Your task to perform on an android device: star an email in the gmail app Image 0: 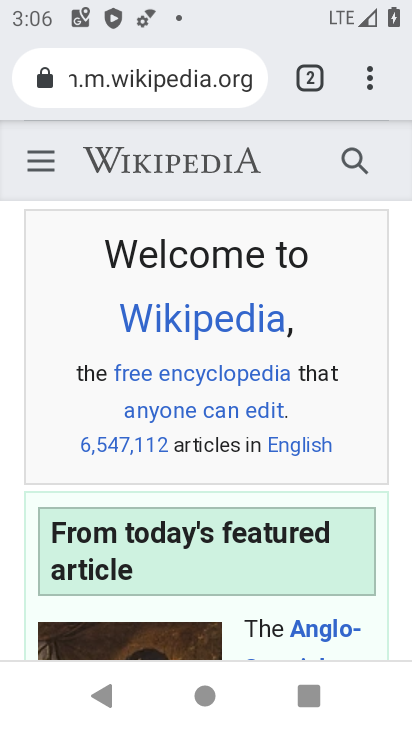
Step 0: press back button
Your task to perform on an android device: star an email in the gmail app Image 1: 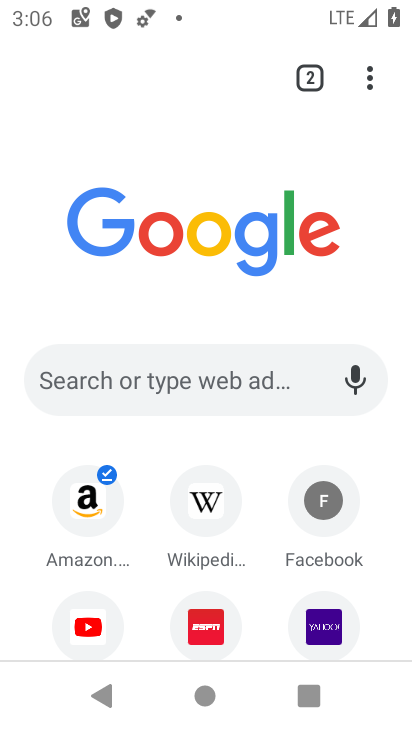
Step 1: press back button
Your task to perform on an android device: star an email in the gmail app Image 2: 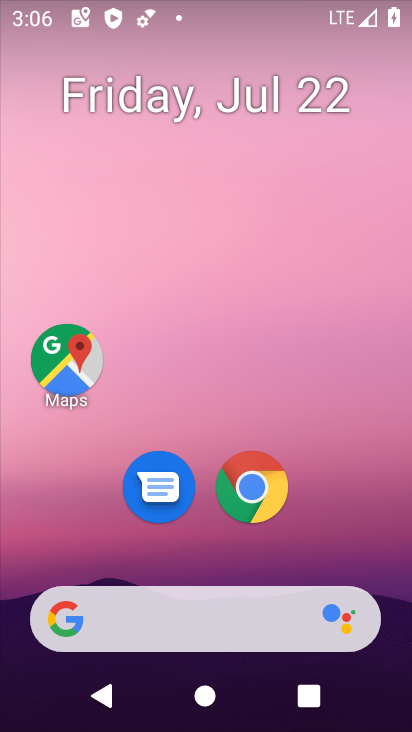
Step 2: drag from (205, 531) to (245, 71)
Your task to perform on an android device: star an email in the gmail app Image 3: 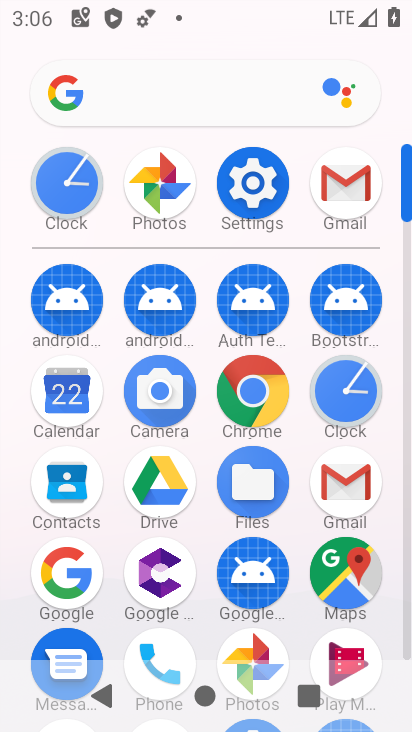
Step 3: click (355, 175)
Your task to perform on an android device: star an email in the gmail app Image 4: 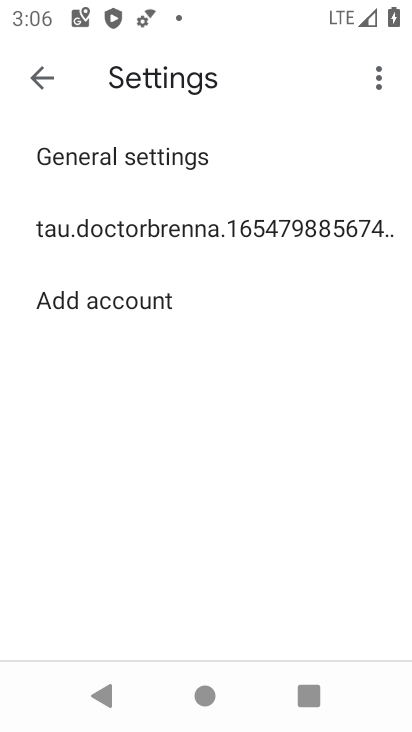
Step 4: click (33, 77)
Your task to perform on an android device: star an email in the gmail app Image 5: 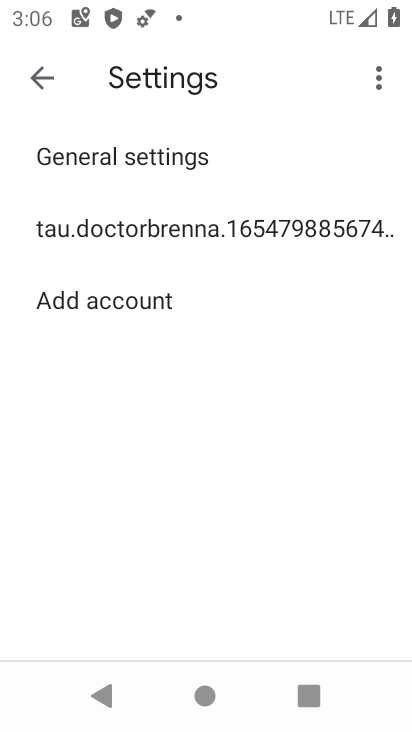
Step 5: click (190, 225)
Your task to perform on an android device: star an email in the gmail app Image 6: 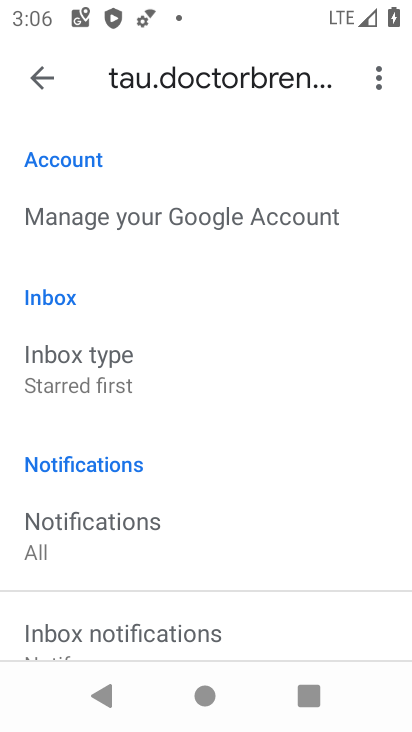
Step 6: click (37, 78)
Your task to perform on an android device: star an email in the gmail app Image 7: 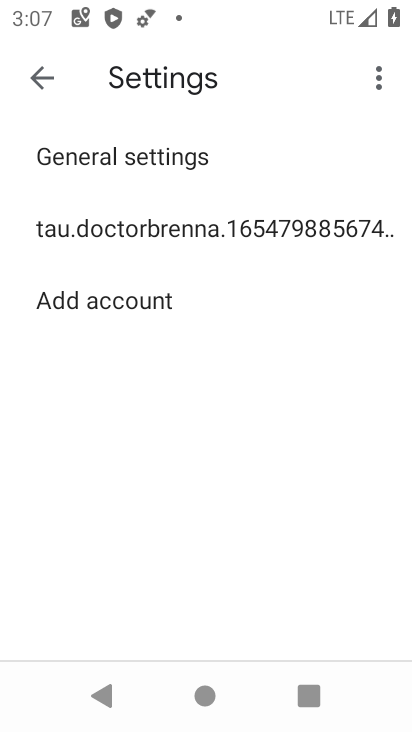
Step 7: click (33, 73)
Your task to perform on an android device: star an email in the gmail app Image 8: 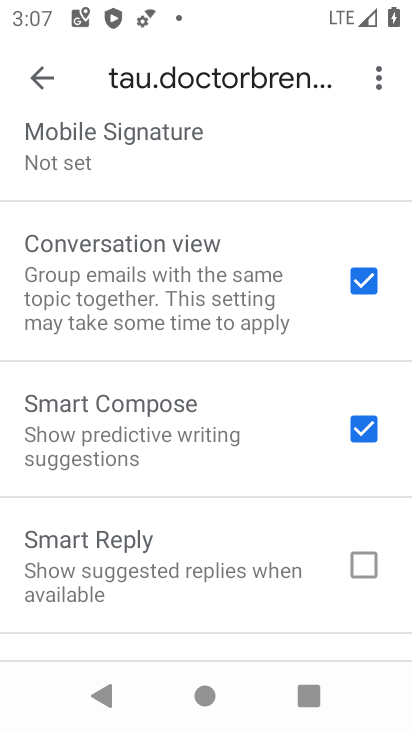
Step 8: click (25, 67)
Your task to perform on an android device: star an email in the gmail app Image 9: 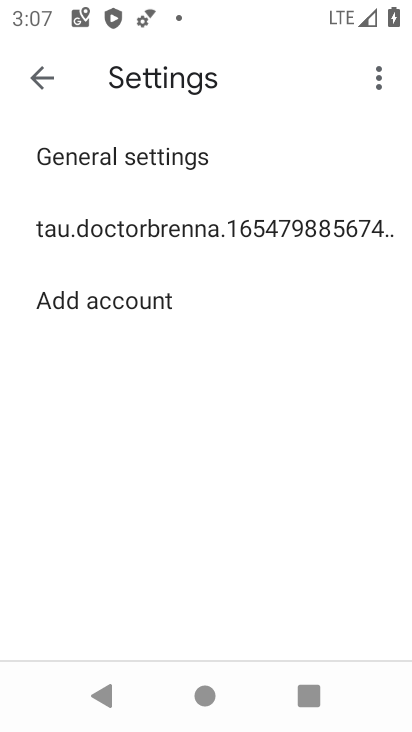
Step 9: click (40, 81)
Your task to perform on an android device: star an email in the gmail app Image 10: 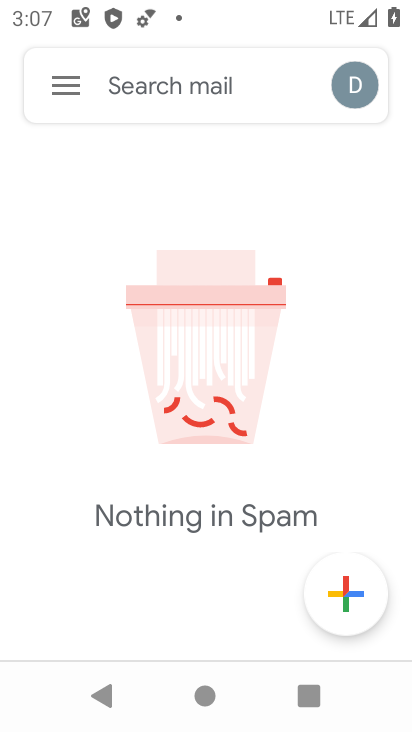
Step 10: click (69, 80)
Your task to perform on an android device: star an email in the gmail app Image 11: 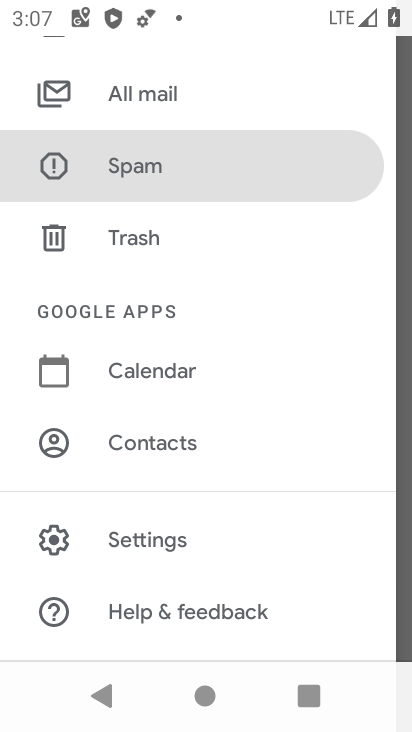
Step 11: click (156, 93)
Your task to perform on an android device: star an email in the gmail app Image 12: 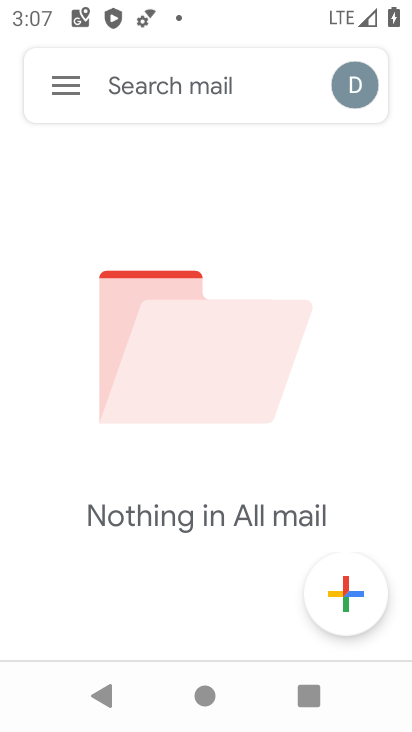
Step 12: task complete